Your task to perform on an android device: find photos in the google photos app Image 0: 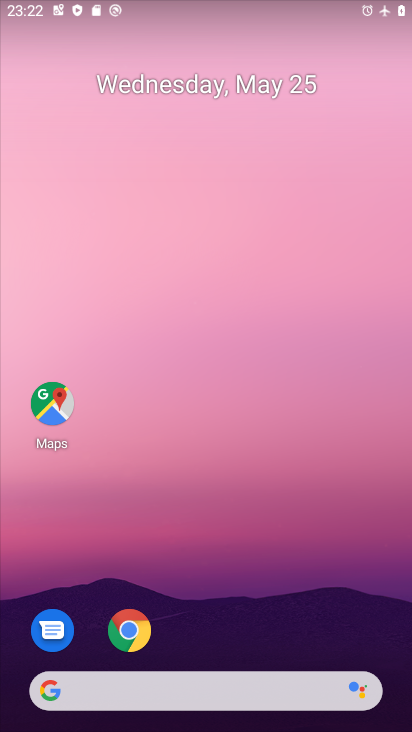
Step 0: drag from (246, 630) to (241, 268)
Your task to perform on an android device: find photos in the google photos app Image 1: 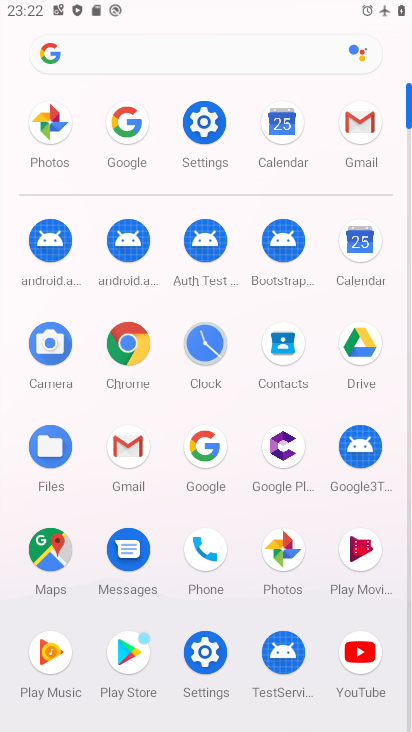
Step 1: click (282, 547)
Your task to perform on an android device: find photos in the google photos app Image 2: 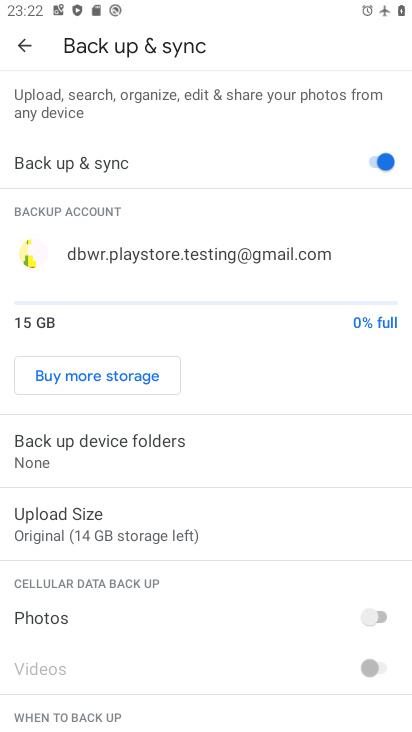
Step 2: click (15, 43)
Your task to perform on an android device: find photos in the google photos app Image 3: 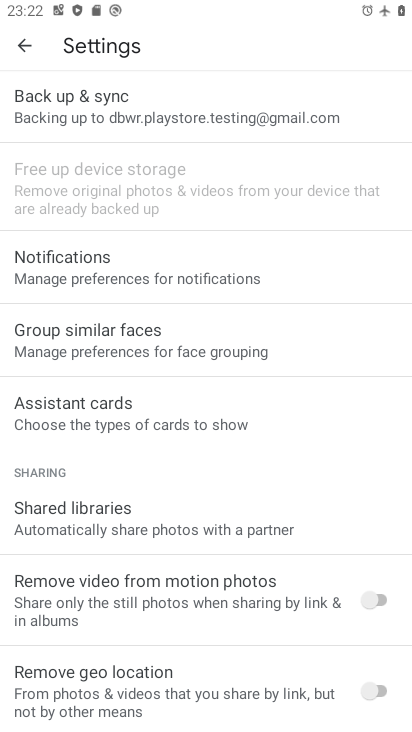
Step 3: click (24, 32)
Your task to perform on an android device: find photos in the google photos app Image 4: 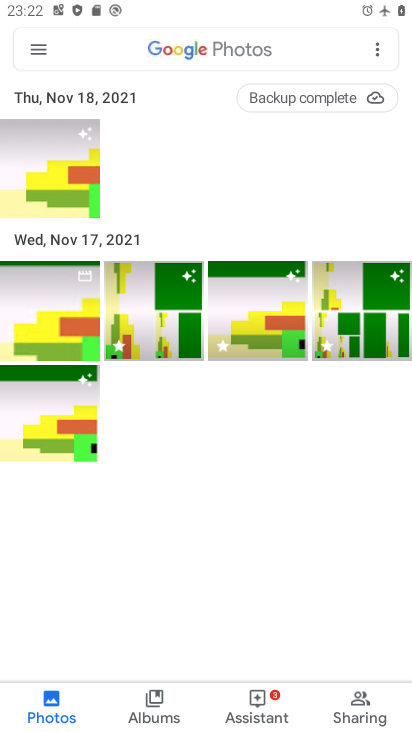
Step 4: click (171, 54)
Your task to perform on an android device: find photos in the google photos app Image 5: 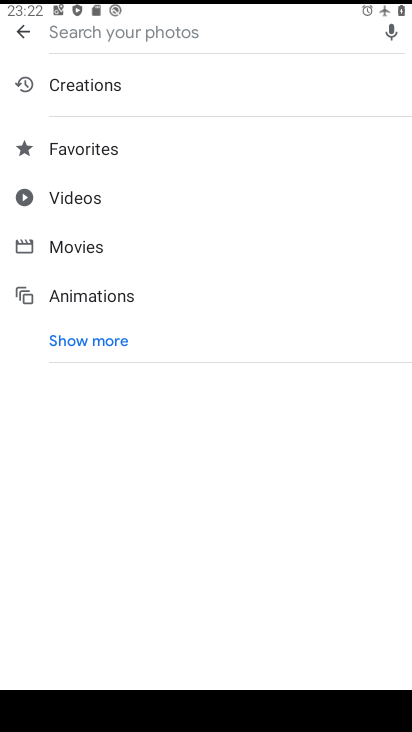
Step 5: type "aa"
Your task to perform on an android device: find photos in the google photos app Image 6: 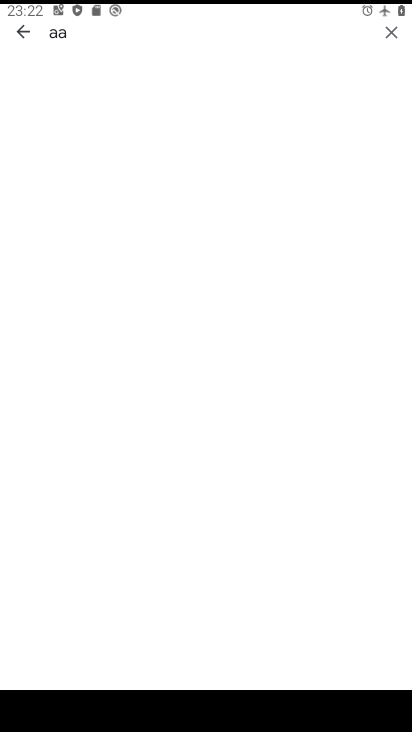
Step 6: task complete